Your task to perform on an android device: see tabs open on other devices in the chrome app Image 0: 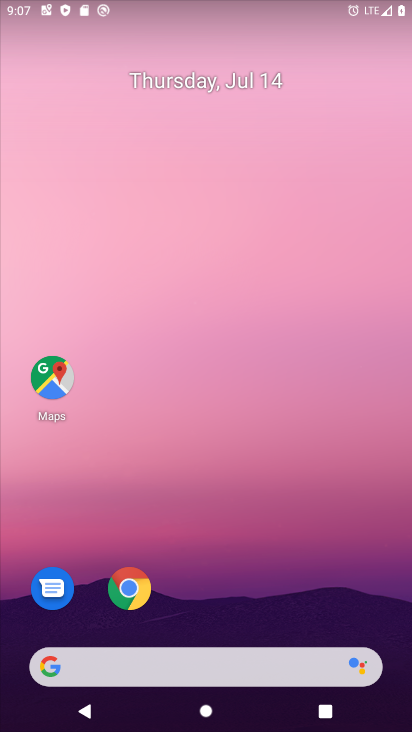
Step 0: click (310, 16)
Your task to perform on an android device: see tabs open on other devices in the chrome app Image 1: 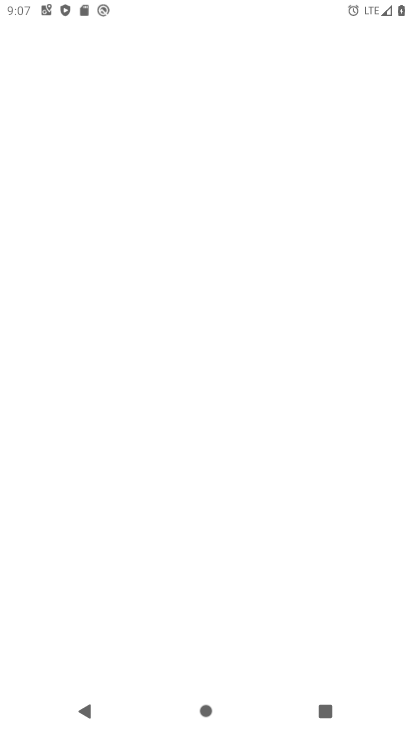
Step 1: press home button
Your task to perform on an android device: see tabs open on other devices in the chrome app Image 2: 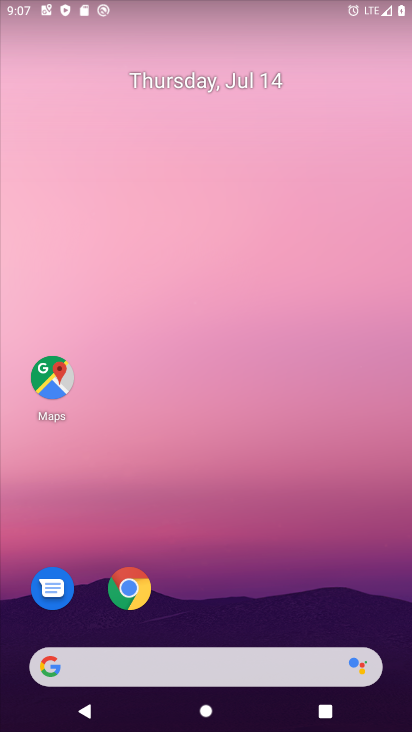
Step 2: drag from (273, 559) to (263, 33)
Your task to perform on an android device: see tabs open on other devices in the chrome app Image 3: 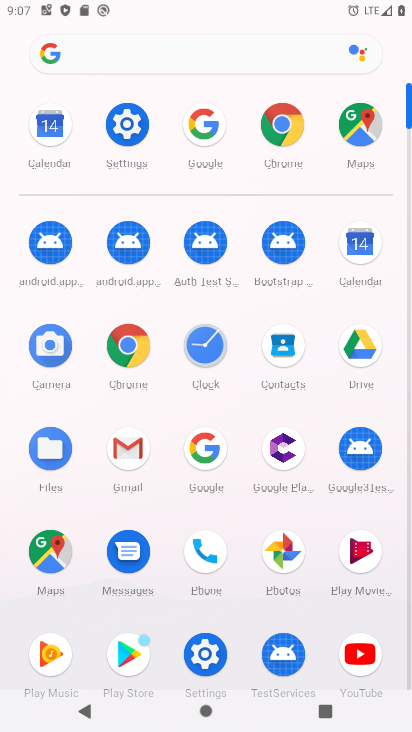
Step 3: click (272, 121)
Your task to perform on an android device: see tabs open on other devices in the chrome app Image 4: 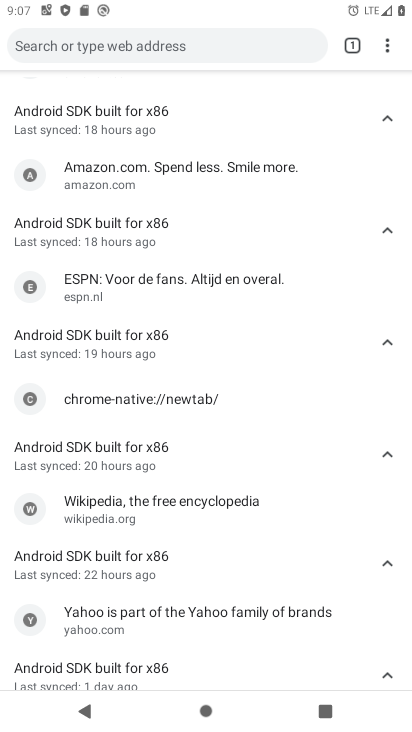
Step 4: task complete